Your task to perform on an android device: open chrome and create a bookmark for the current page Image 0: 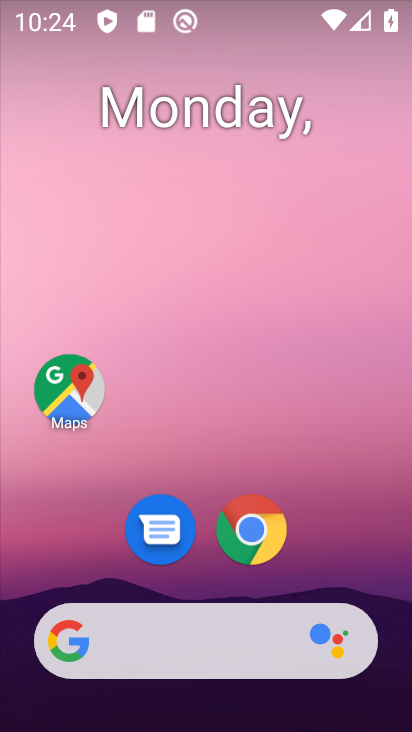
Step 0: click (256, 529)
Your task to perform on an android device: open chrome and create a bookmark for the current page Image 1: 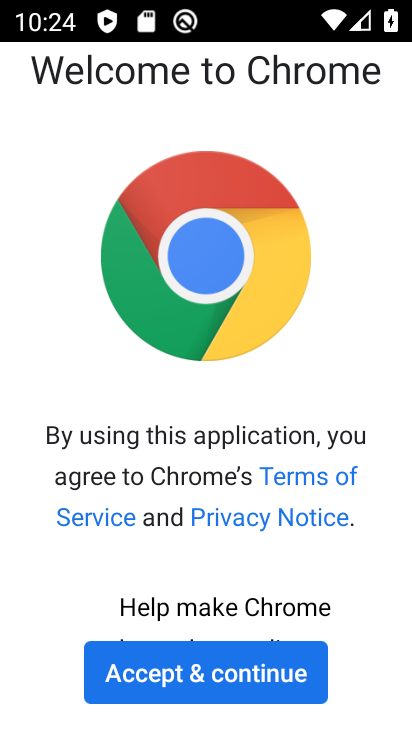
Step 1: click (207, 675)
Your task to perform on an android device: open chrome and create a bookmark for the current page Image 2: 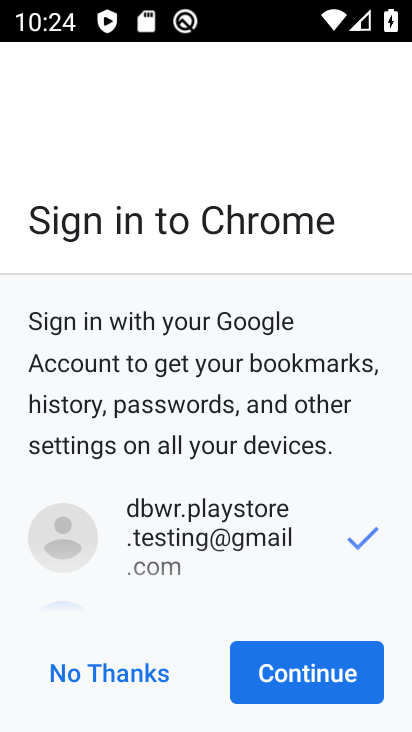
Step 2: click (290, 676)
Your task to perform on an android device: open chrome and create a bookmark for the current page Image 3: 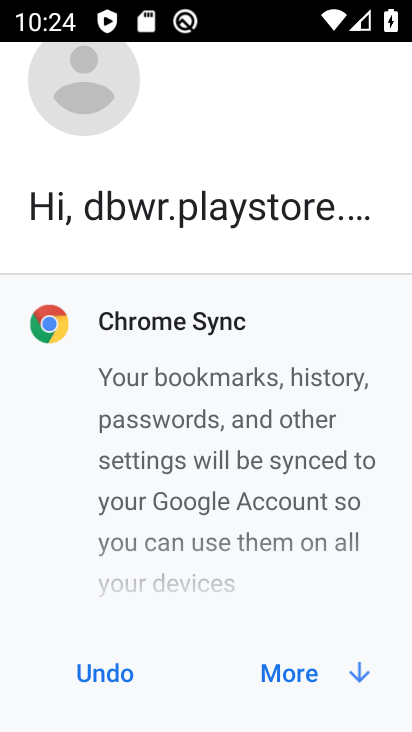
Step 3: click (290, 676)
Your task to perform on an android device: open chrome and create a bookmark for the current page Image 4: 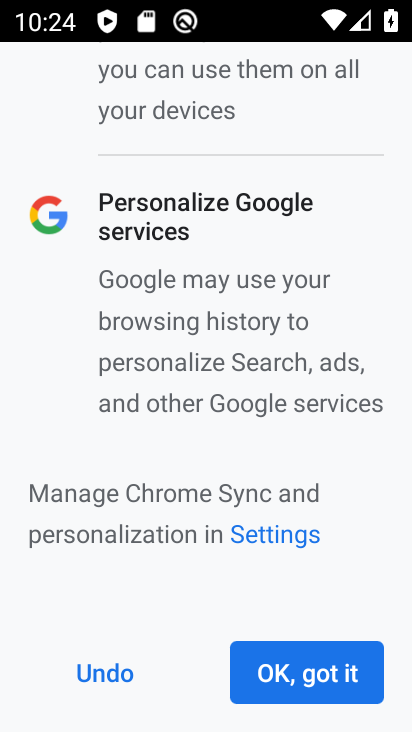
Step 4: click (303, 672)
Your task to perform on an android device: open chrome and create a bookmark for the current page Image 5: 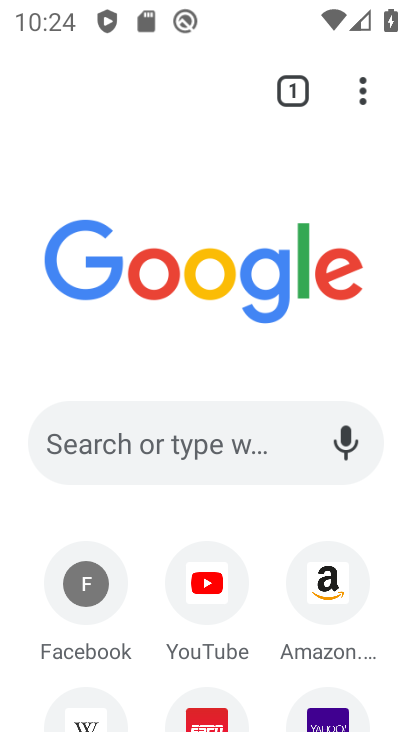
Step 5: click (364, 101)
Your task to perform on an android device: open chrome and create a bookmark for the current page Image 6: 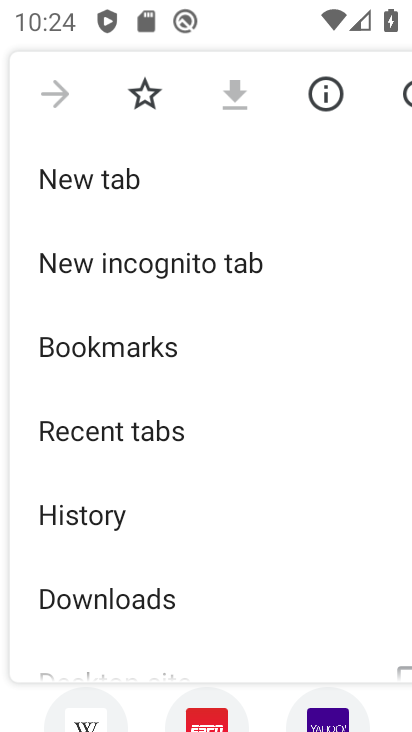
Step 6: click (148, 94)
Your task to perform on an android device: open chrome and create a bookmark for the current page Image 7: 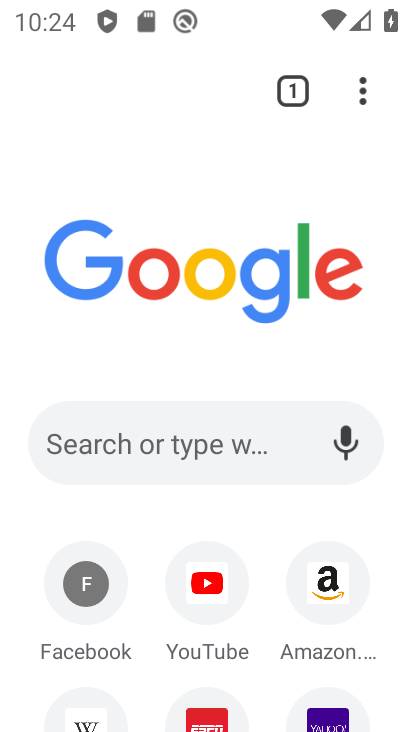
Step 7: task complete